Your task to perform on an android device: turn off improve location accuracy Image 0: 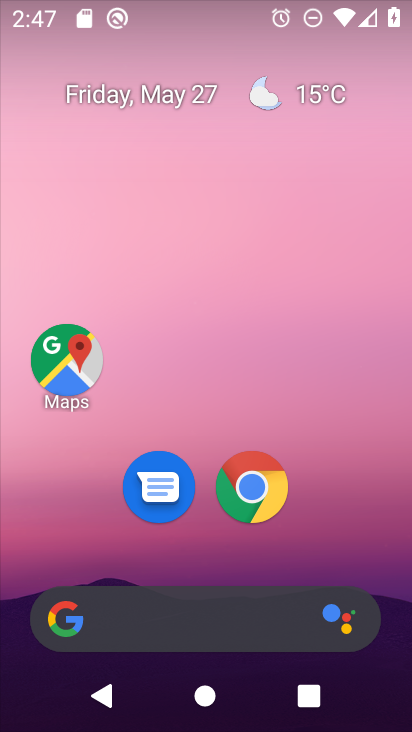
Step 0: click (251, 569)
Your task to perform on an android device: turn off improve location accuracy Image 1: 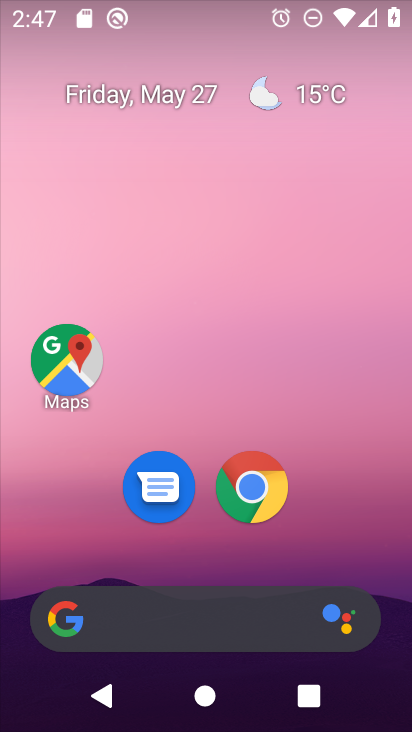
Step 1: drag from (212, 554) to (228, 123)
Your task to perform on an android device: turn off improve location accuracy Image 2: 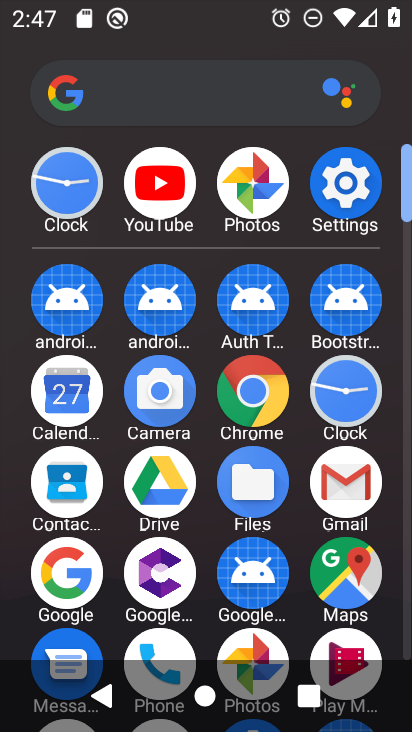
Step 2: click (346, 206)
Your task to perform on an android device: turn off improve location accuracy Image 3: 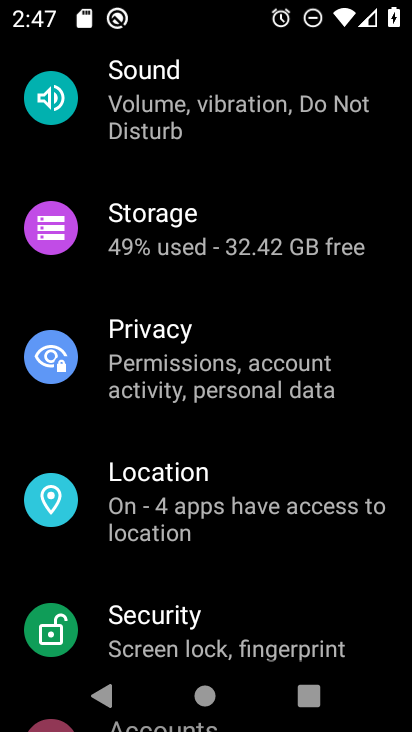
Step 3: click (203, 494)
Your task to perform on an android device: turn off improve location accuracy Image 4: 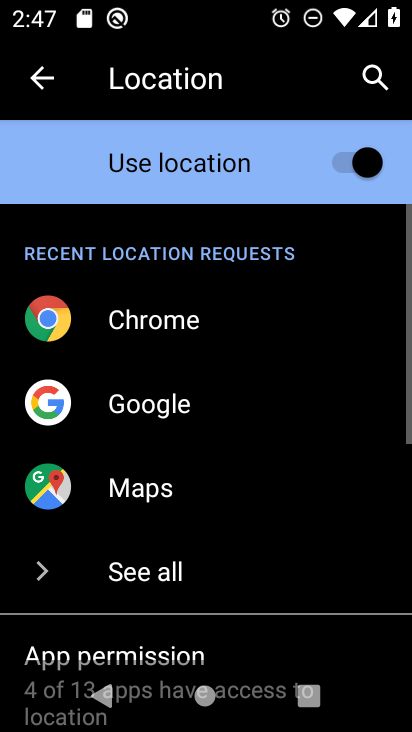
Step 4: drag from (114, 430) to (114, 149)
Your task to perform on an android device: turn off improve location accuracy Image 5: 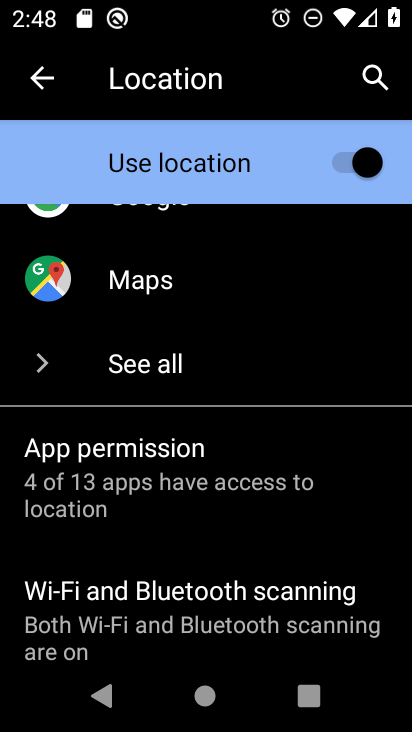
Step 5: drag from (175, 576) to (132, 259)
Your task to perform on an android device: turn off improve location accuracy Image 6: 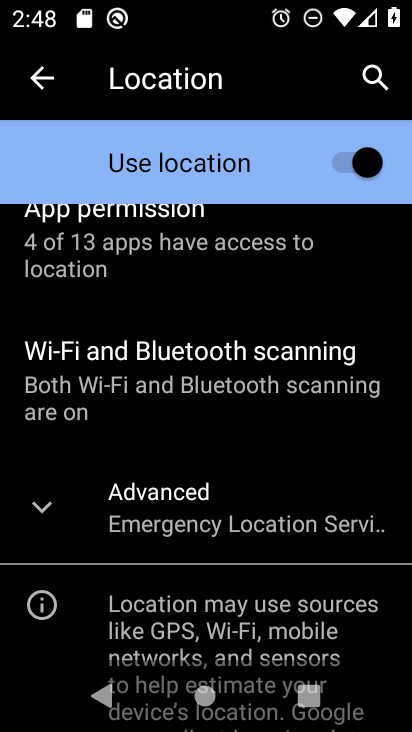
Step 6: click (256, 519)
Your task to perform on an android device: turn off improve location accuracy Image 7: 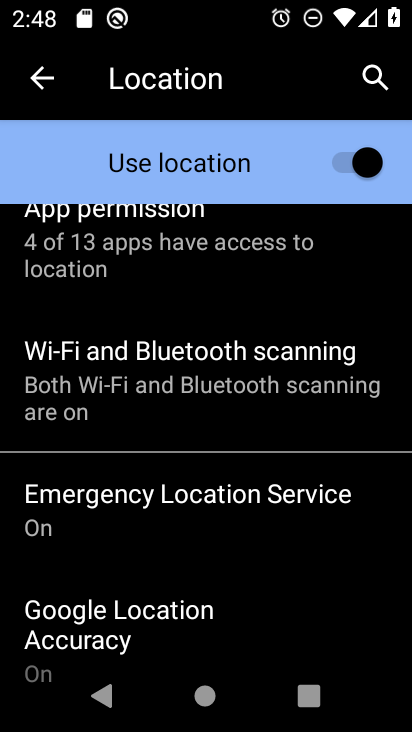
Step 7: click (186, 626)
Your task to perform on an android device: turn off improve location accuracy Image 8: 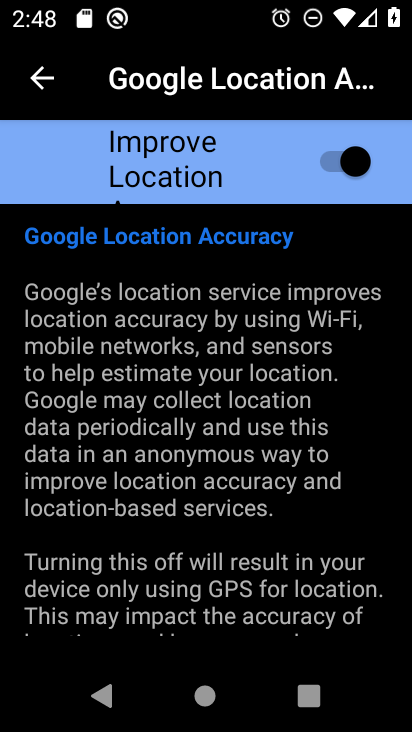
Step 8: click (345, 178)
Your task to perform on an android device: turn off improve location accuracy Image 9: 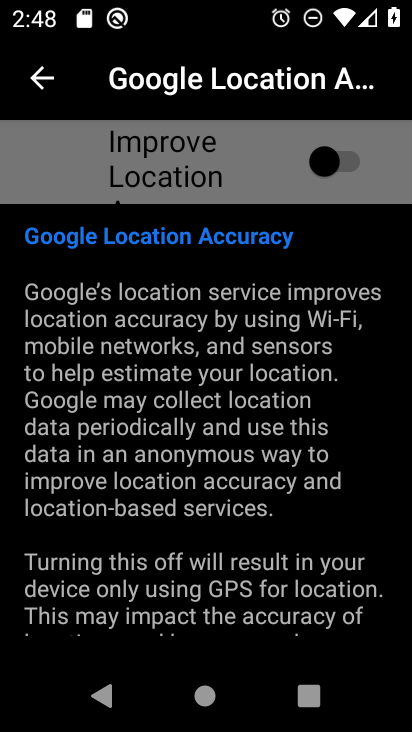
Step 9: task complete